Your task to perform on an android device: Open maps Image 0: 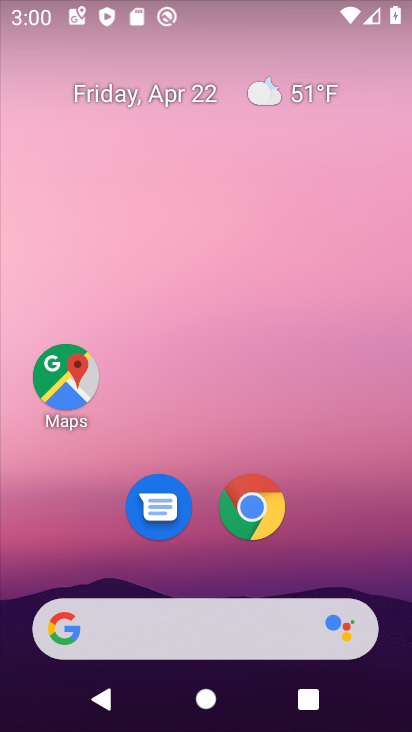
Step 0: click (58, 372)
Your task to perform on an android device: Open maps Image 1: 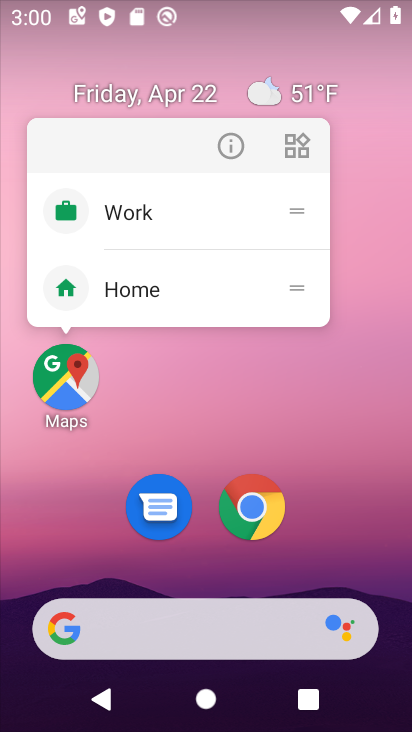
Step 1: click (58, 372)
Your task to perform on an android device: Open maps Image 2: 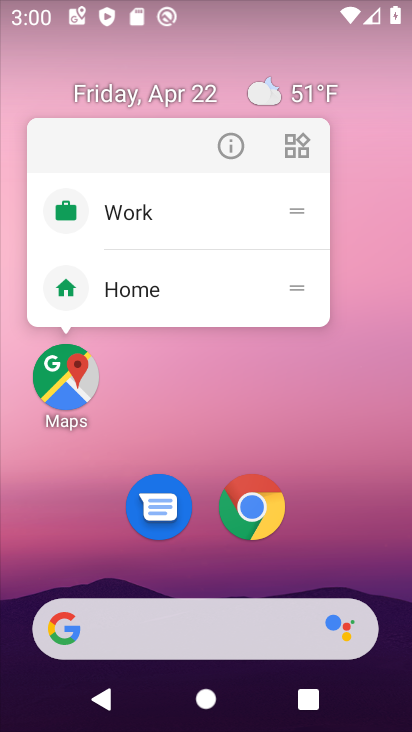
Step 2: click (77, 365)
Your task to perform on an android device: Open maps Image 3: 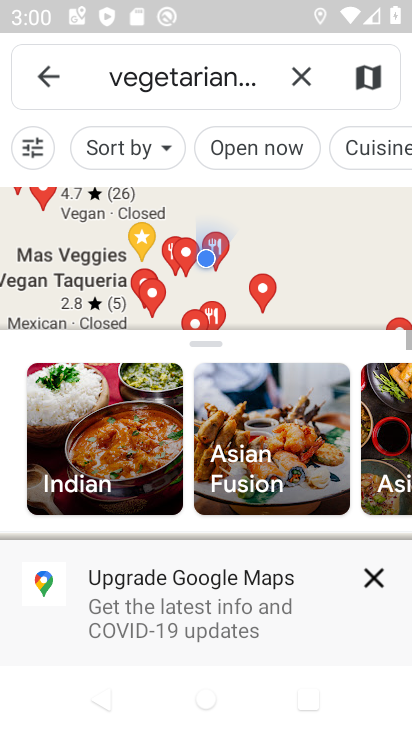
Step 3: task complete